Your task to perform on an android device: Open battery settings Image 0: 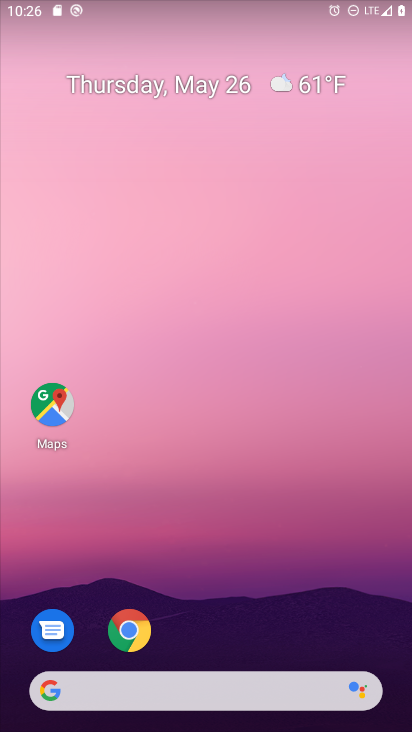
Step 0: drag from (202, 672) to (199, 45)
Your task to perform on an android device: Open battery settings Image 1: 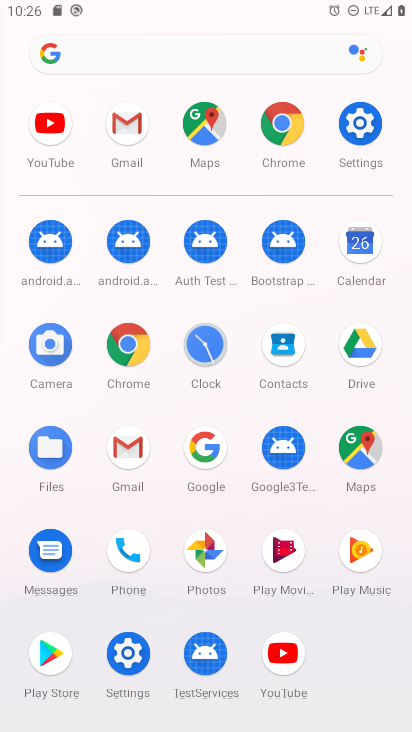
Step 1: click (359, 113)
Your task to perform on an android device: Open battery settings Image 2: 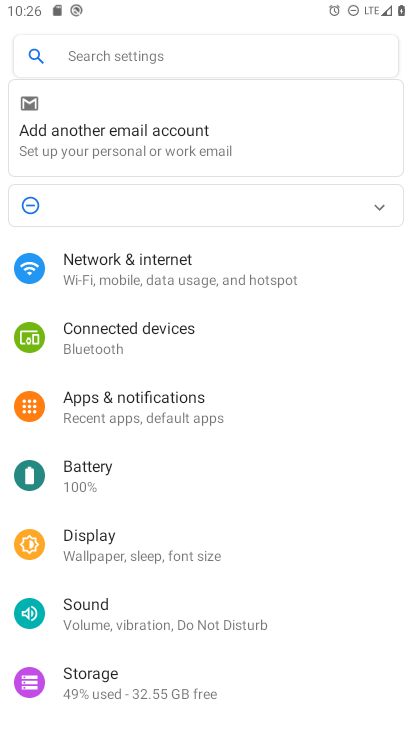
Step 2: click (64, 464)
Your task to perform on an android device: Open battery settings Image 3: 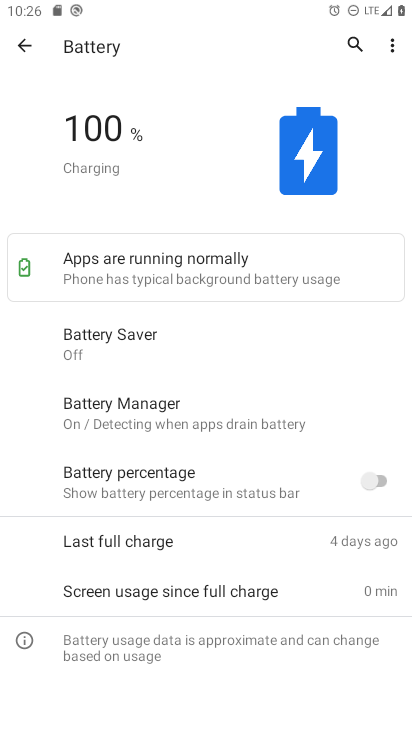
Step 3: task complete